Your task to perform on an android device: turn off wifi Image 0: 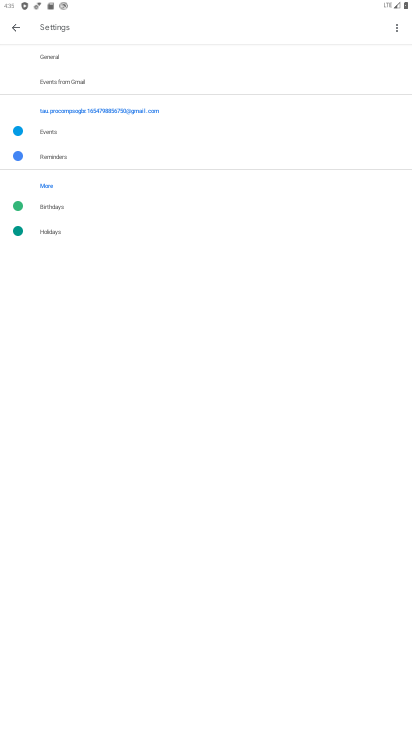
Step 0: press home button
Your task to perform on an android device: turn off wifi Image 1: 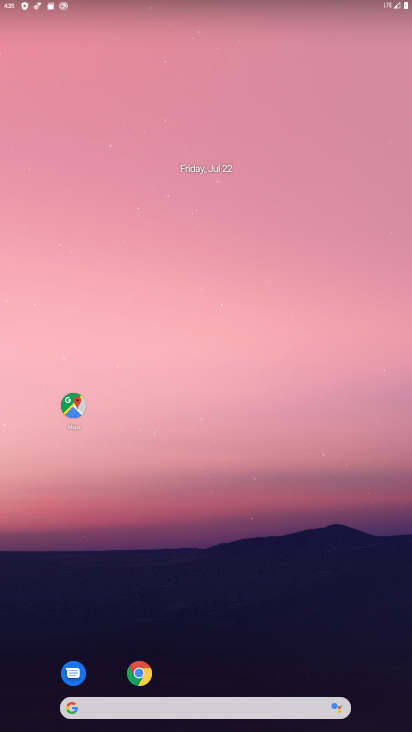
Step 1: drag from (308, 579) to (313, 12)
Your task to perform on an android device: turn off wifi Image 2: 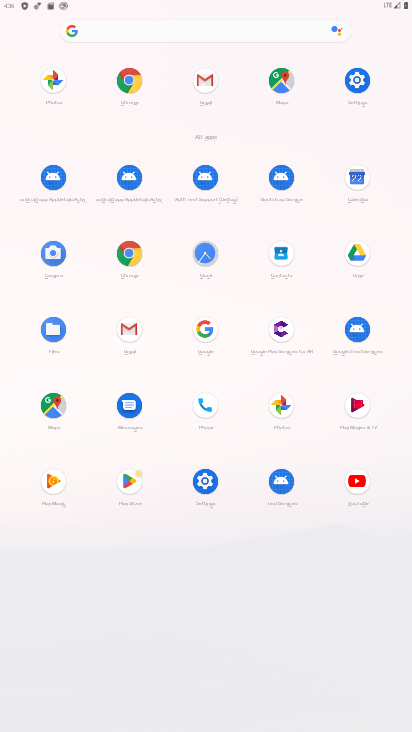
Step 2: click (357, 75)
Your task to perform on an android device: turn off wifi Image 3: 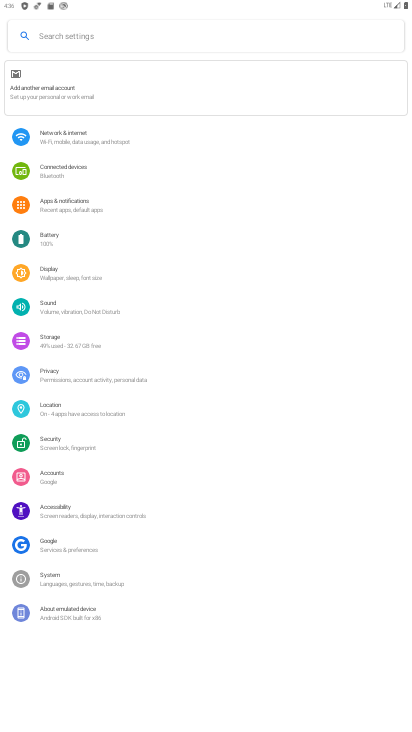
Step 3: click (49, 141)
Your task to perform on an android device: turn off wifi Image 4: 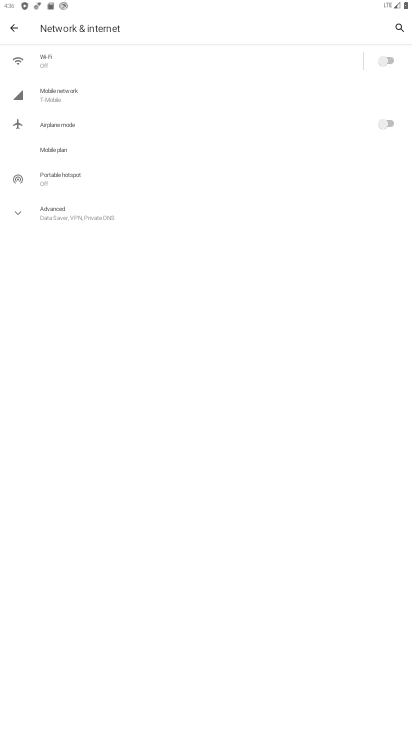
Step 4: task complete